Your task to perform on an android device: Where can I buy a nice beach tote? Image 0: 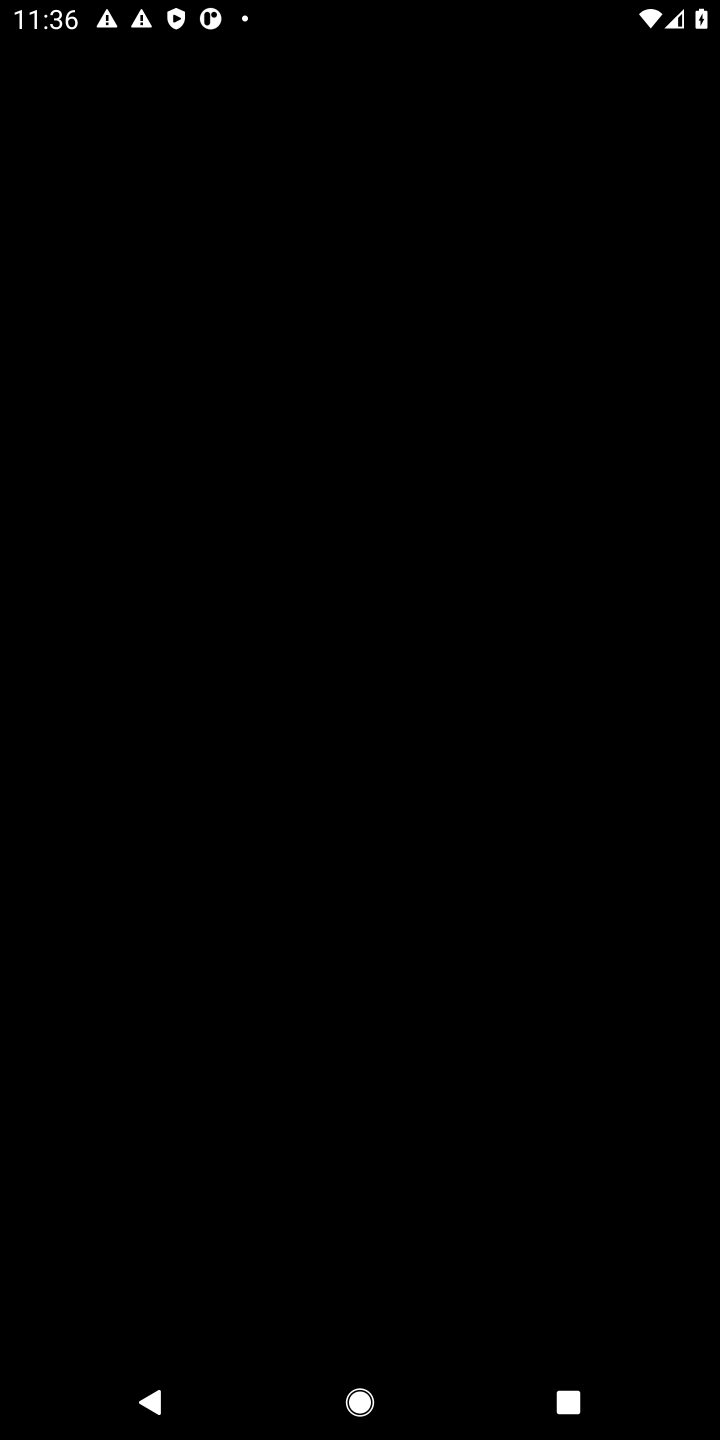
Step 0: press home button
Your task to perform on an android device: Where can I buy a nice beach tote? Image 1: 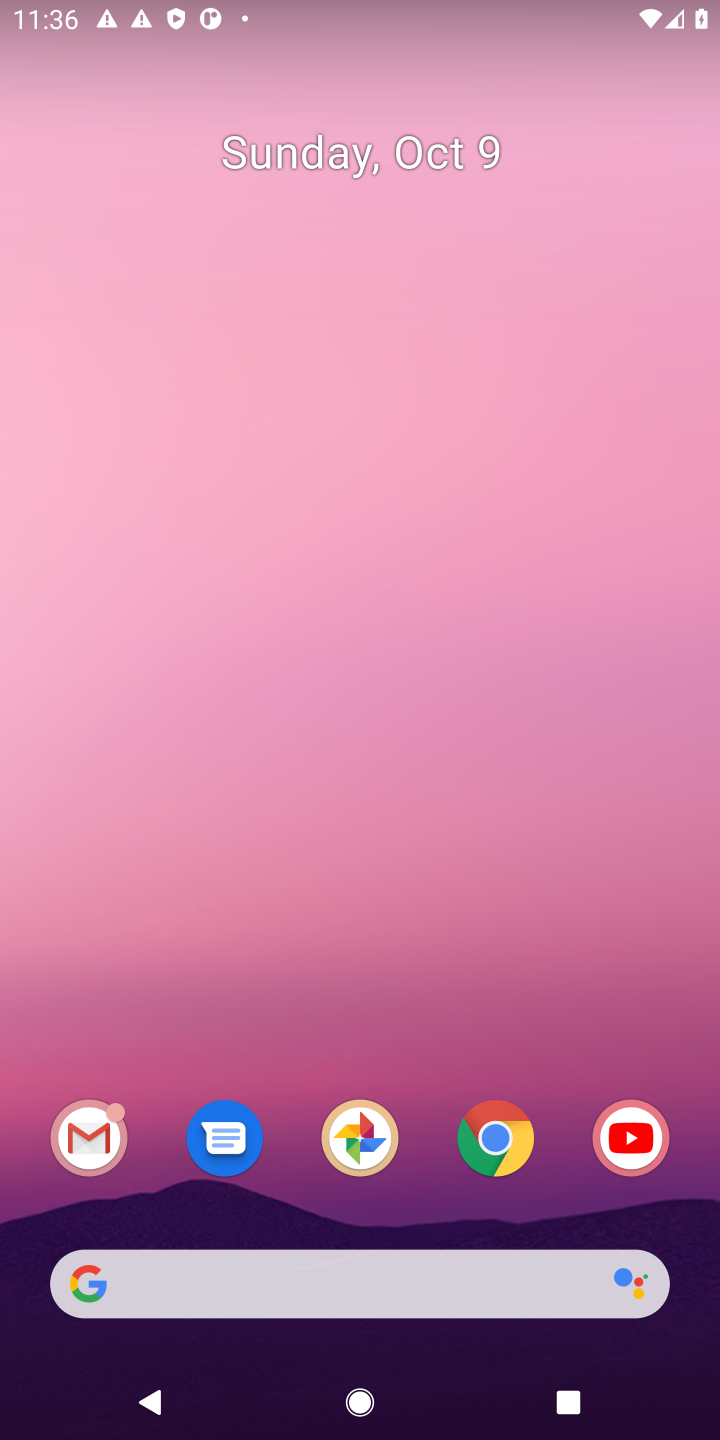
Step 1: press home button
Your task to perform on an android device: Where can I buy a nice beach tote? Image 2: 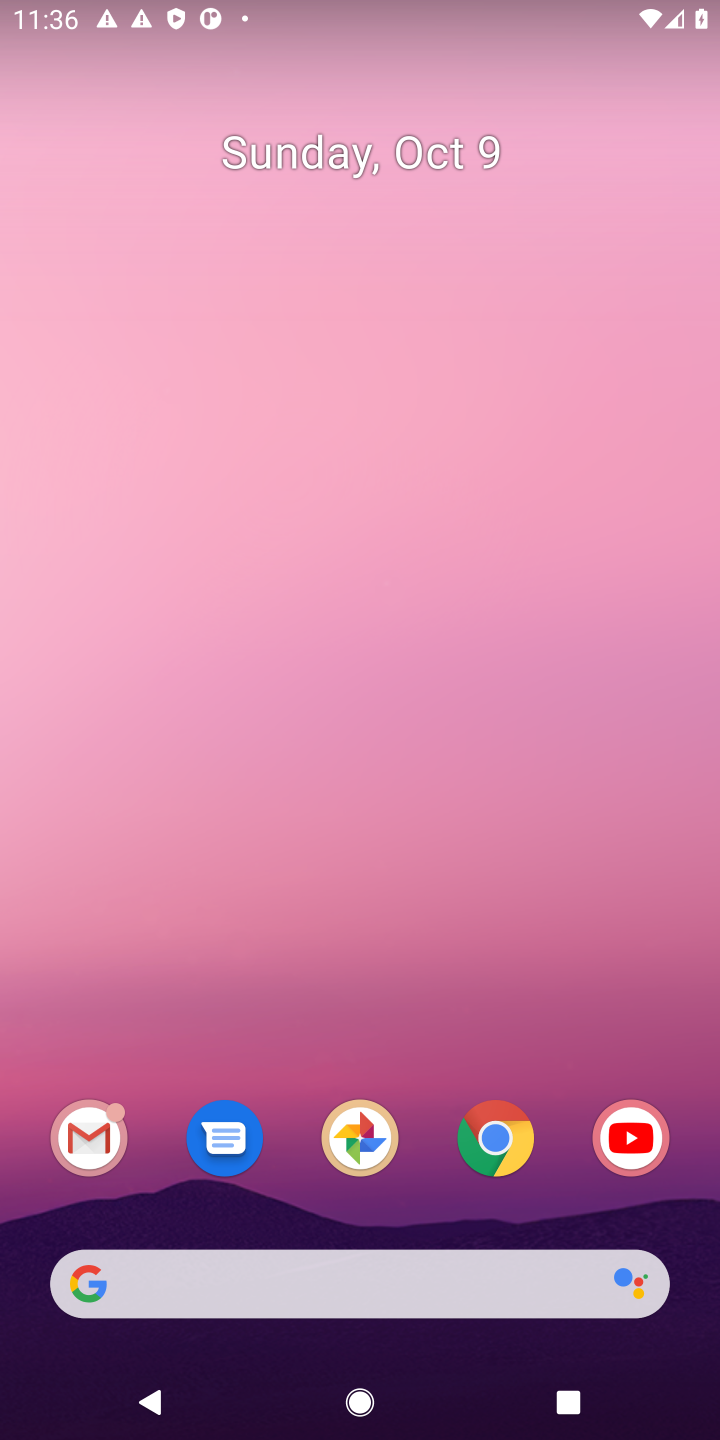
Step 2: click (525, 1139)
Your task to perform on an android device: Where can I buy a nice beach tote? Image 3: 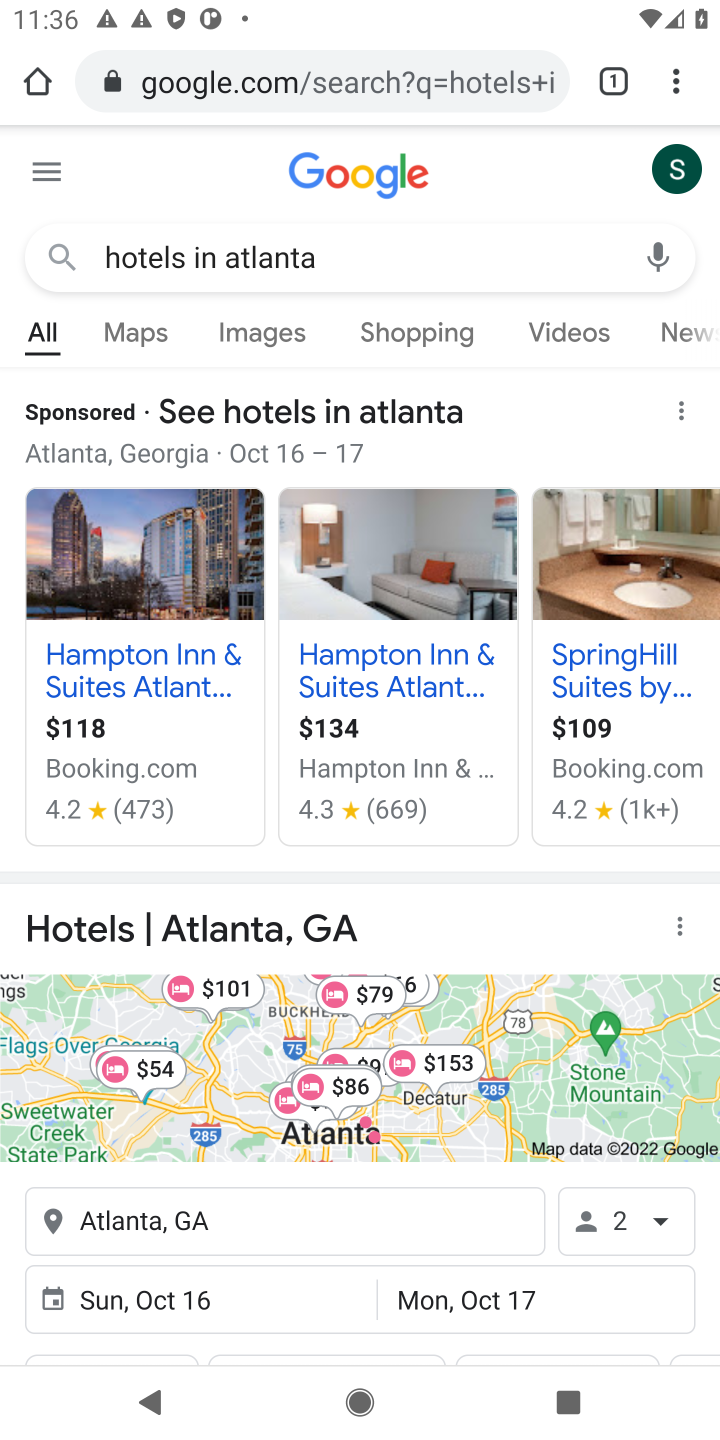
Step 3: click (395, 83)
Your task to perform on an android device: Where can I buy a nice beach tote? Image 4: 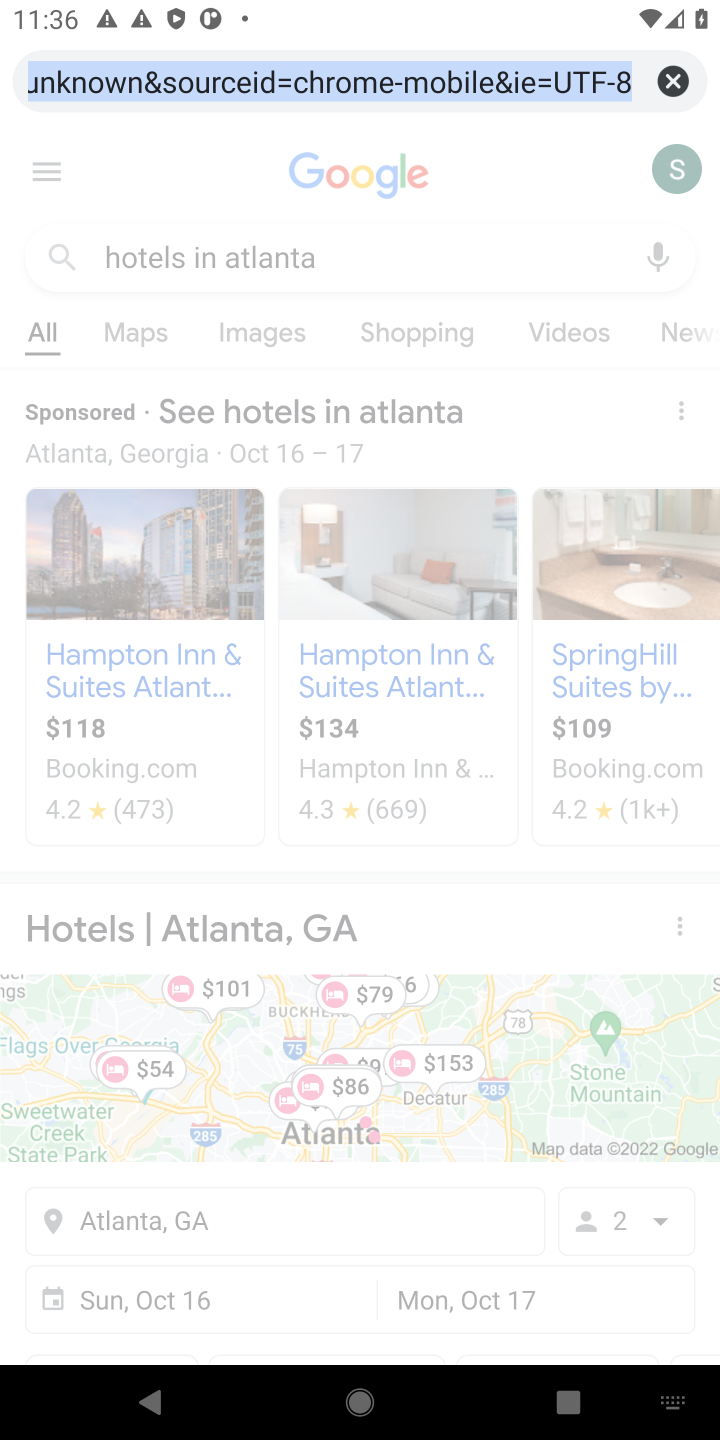
Step 4: type "nice beach tote"
Your task to perform on an android device: Where can I buy a nice beach tote? Image 5: 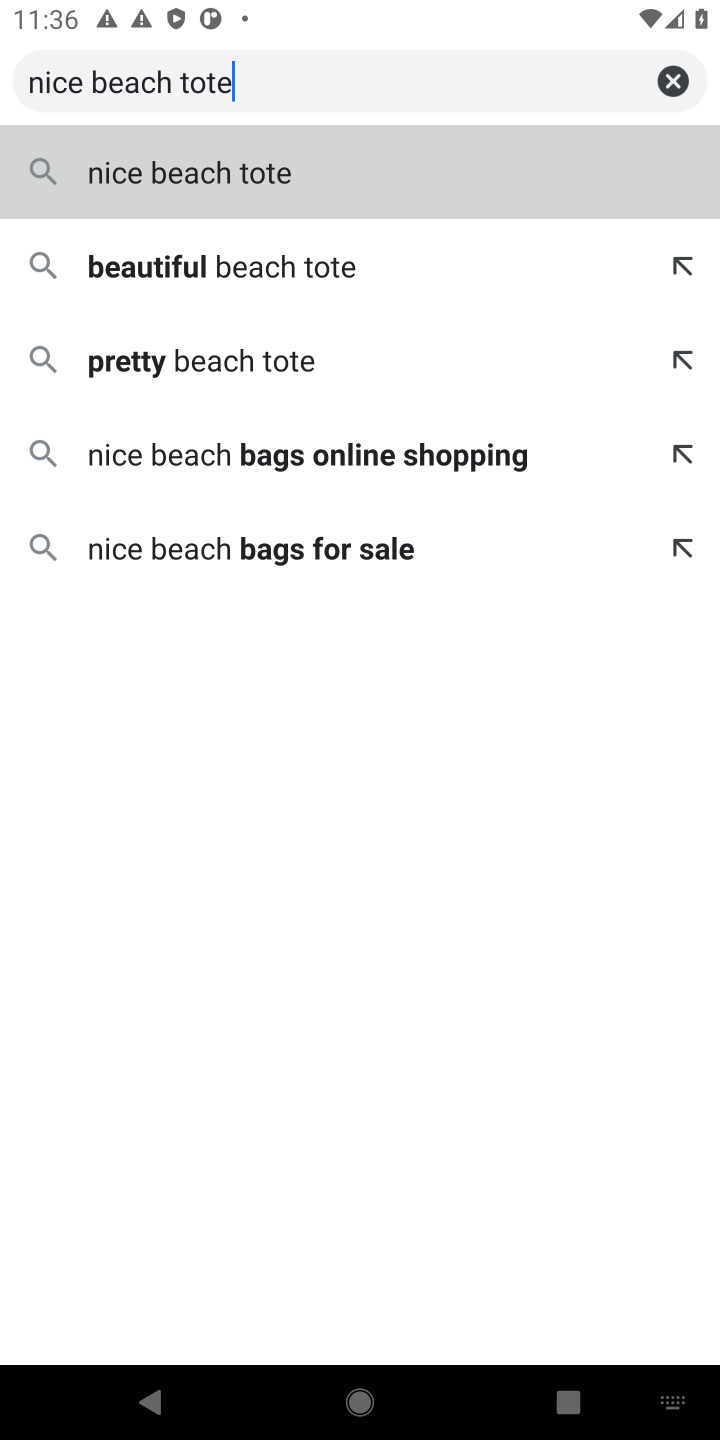
Step 5: click (391, 162)
Your task to perform on an android device: Where can I buy a nice beach tote? Image 6: 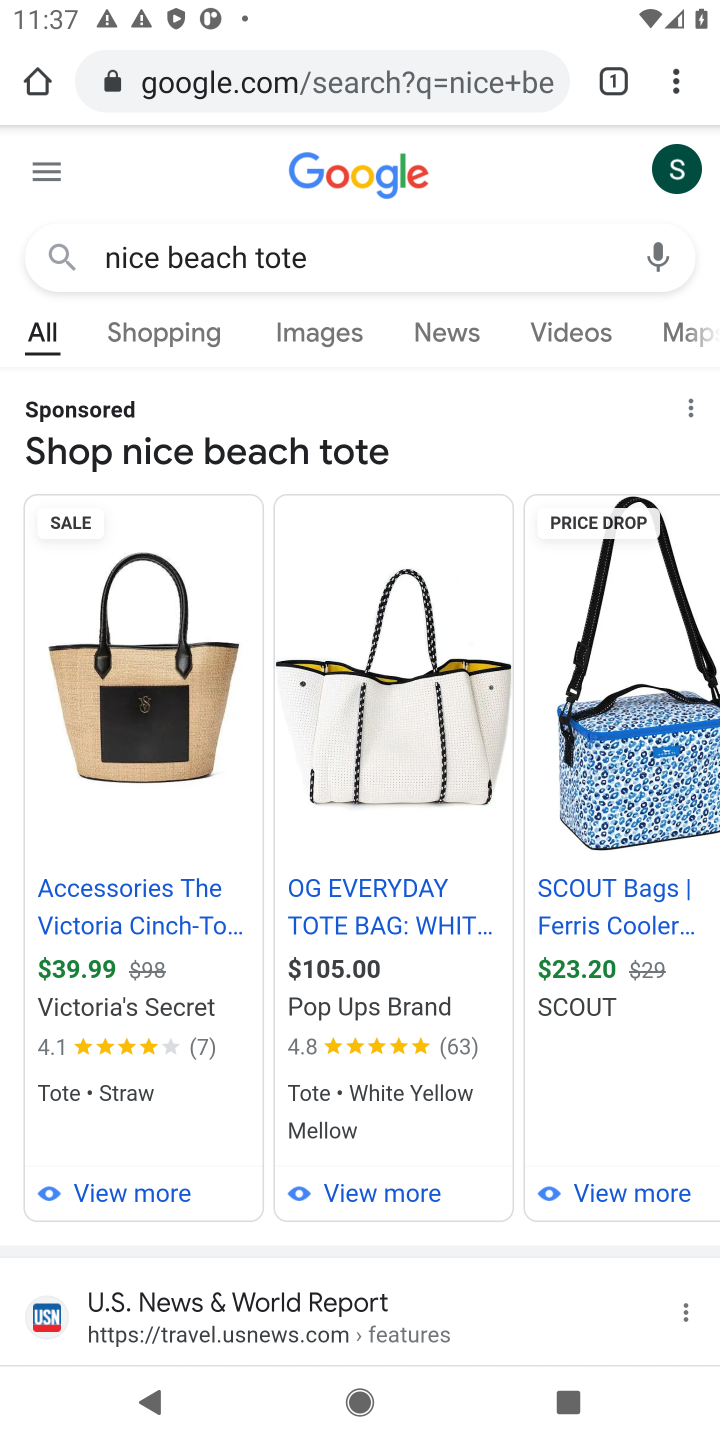
Step 6: drag from (498, 915) to (654, 590)
Your task to perform on an android device: Where can I buy a nice beach tote? Image 7: 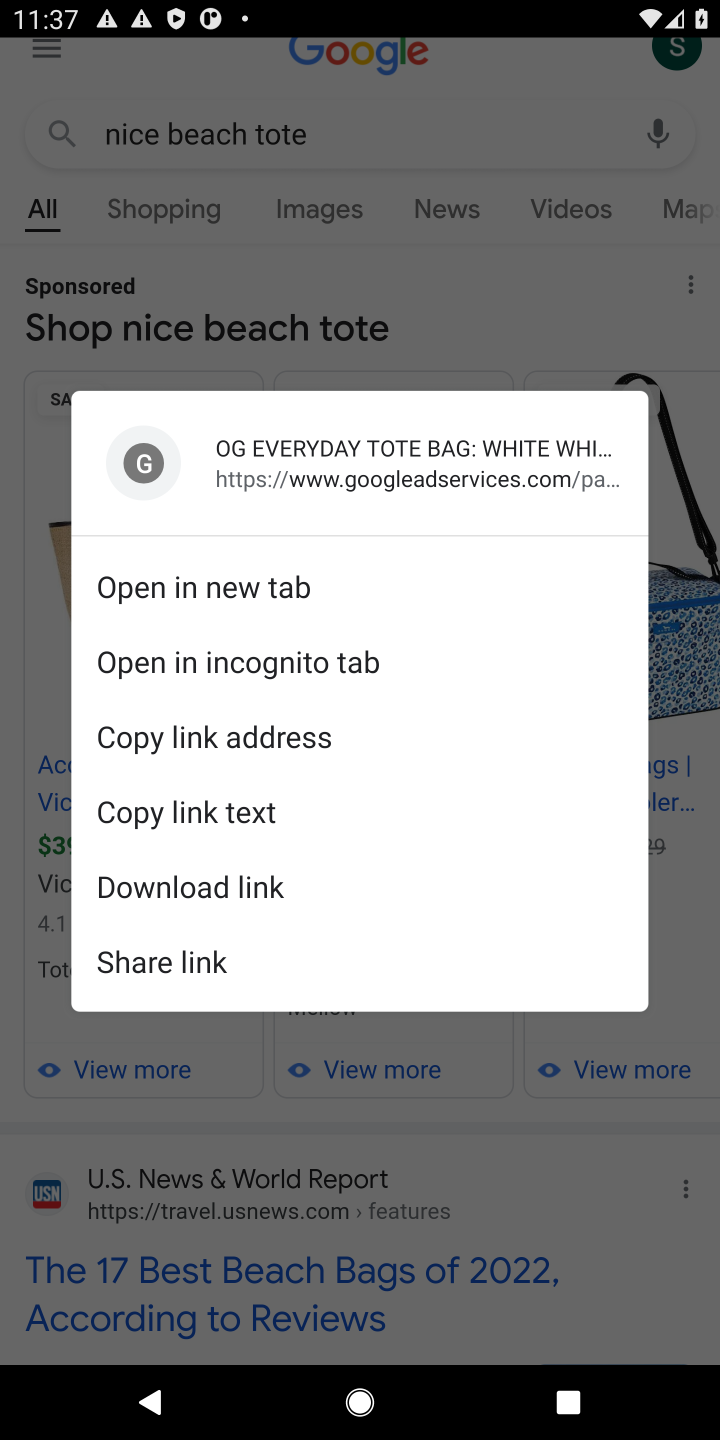
Step 7: click (677, 633)
Your task to perform on an android device: Where can I buy a nice beach tote? Image 8: 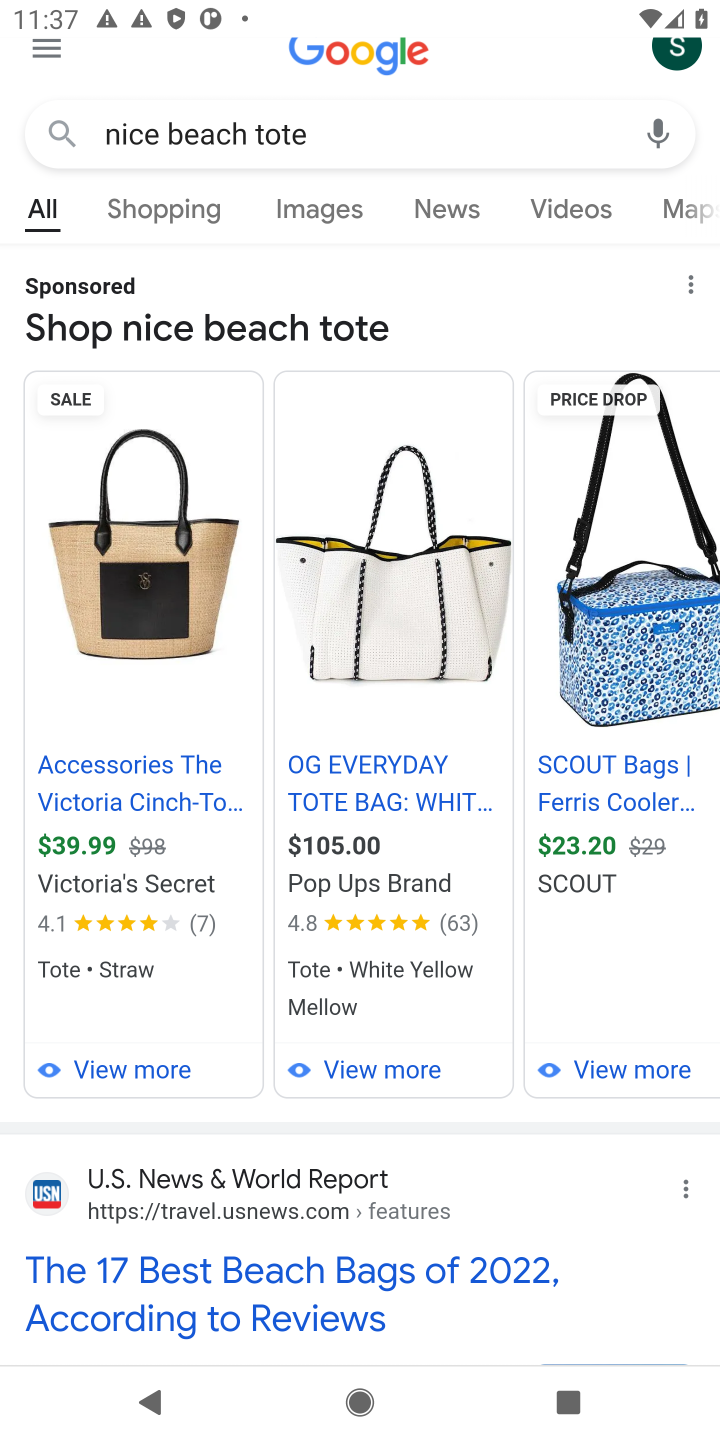
Step 8: task complete